Your task to perform on an android device: turn on showing notifications on the lock screen Image 0: 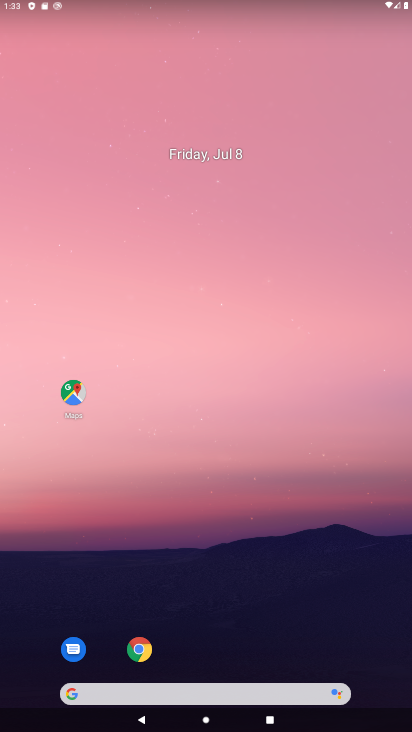
Step 0: drag from (221, 645) to (174, 213)
Your task to perform on an android device: turn on showing notifications on the lock screen Image 1: 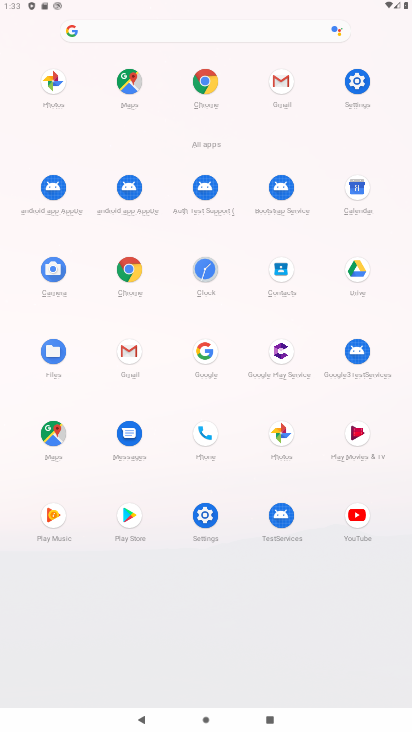
Step 1: click (367, 78)
Your task to perform on an android device: turn on showing notifications on the lock screen Image 2: 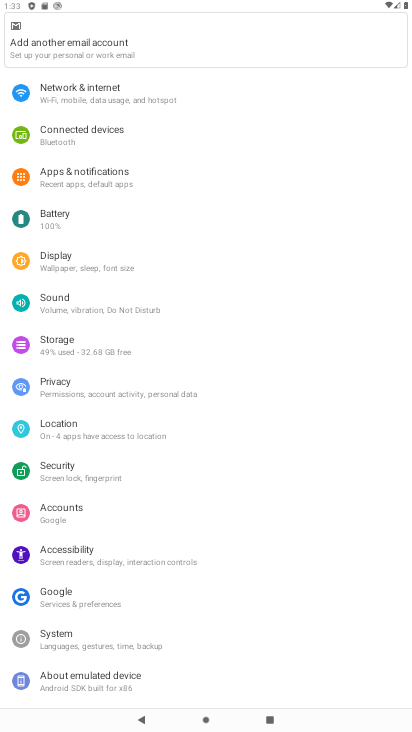
Step 2: click (80, 177)
Your task to perform on an android device: turn on showing notifications on the lock screen Image 3: 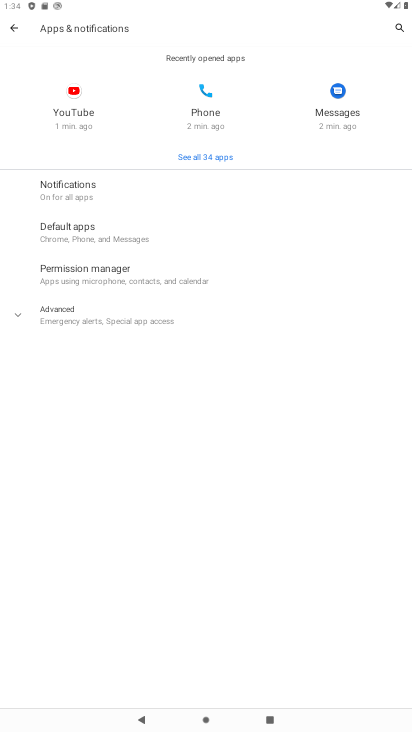
Step 3: click (75, 199)
Your task to perform on an android device: turn on showing notifications on the lock screen Image 4: 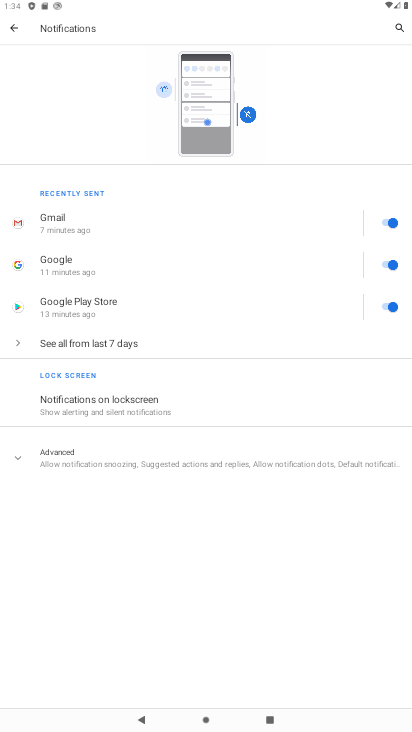
Step 4: click (217, 415)
Your task to perform on an android device: turn on showing notifications on the lock screen Image 5: 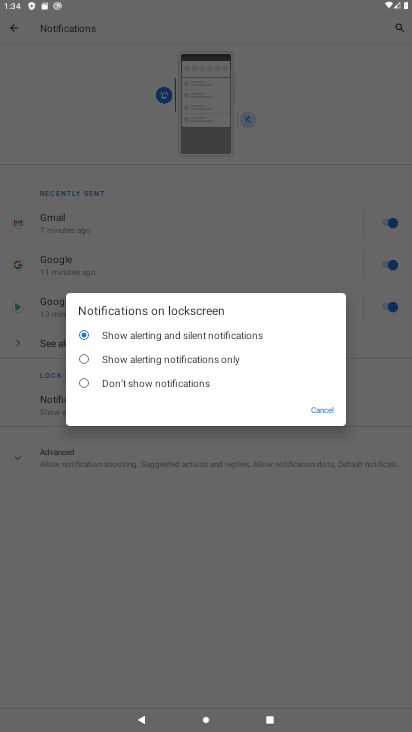
Step 5: click (176, 364)
Your task to perform on an android device: turn on showing notifications on the lock screen Image 6: 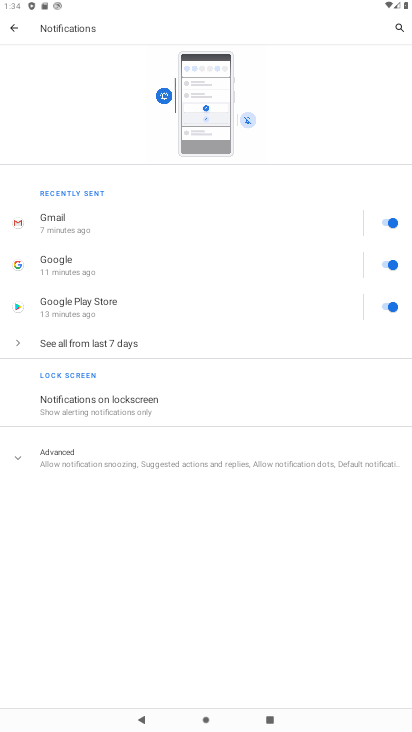
Step 6: task complete